Your task to perform on an android device: allow notifications from all sites in the chrome app Image 0: 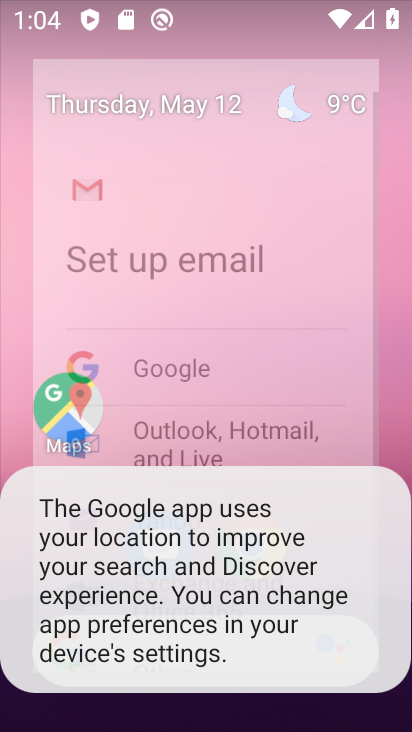
Step 0: drag from (289, 536) to (236, 40)
Your task to perform on an android device: allow notifications from all sites in the chrome app Image 1: 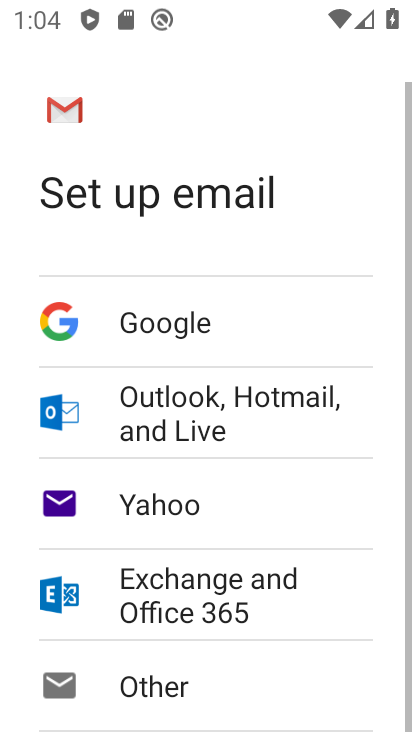
Step 1: press back button
Your task to perform on an android device: allow notifications from all sites in the chrome app Image 2: 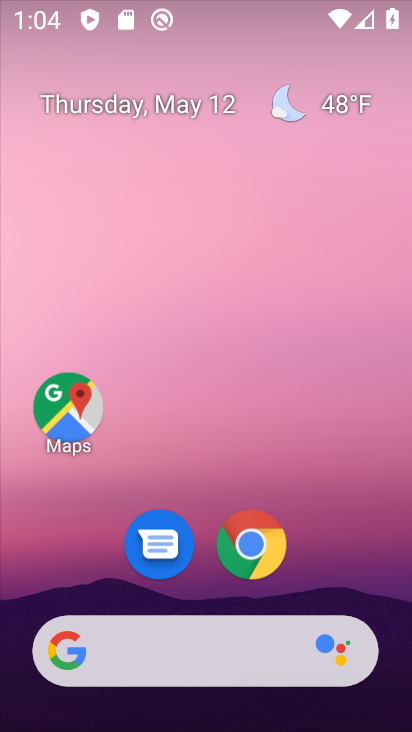
Step 2: drag from (305, 218) to (268, 50)
Your task to perform on an android device: allow notifications from all sites in the chrome app Image 3: 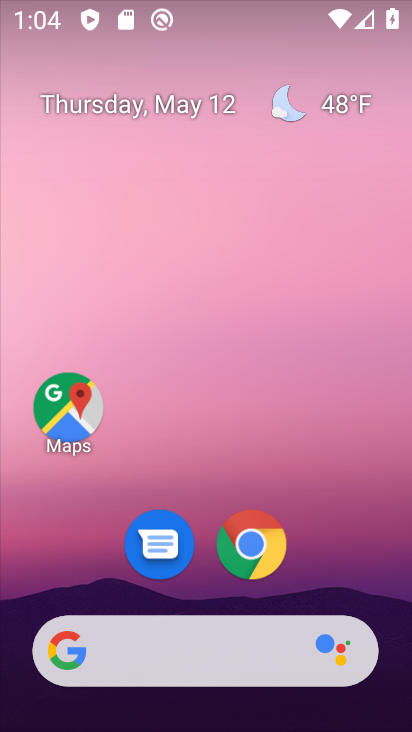
Step 3: drag from (16, 656) to (34, 77)
Your task to perform on an android device: allow notifications from all sites in the chrome app Image 4: 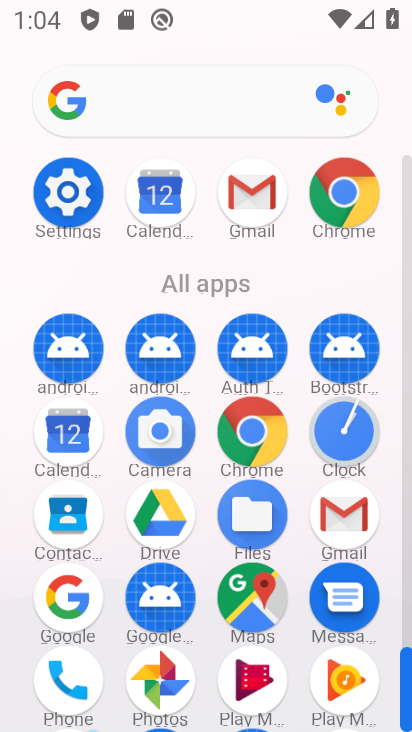
Step 4: click (345, 188)
Your task to perform on an android device: allow notifications from all sites in the chrome app Image 5: 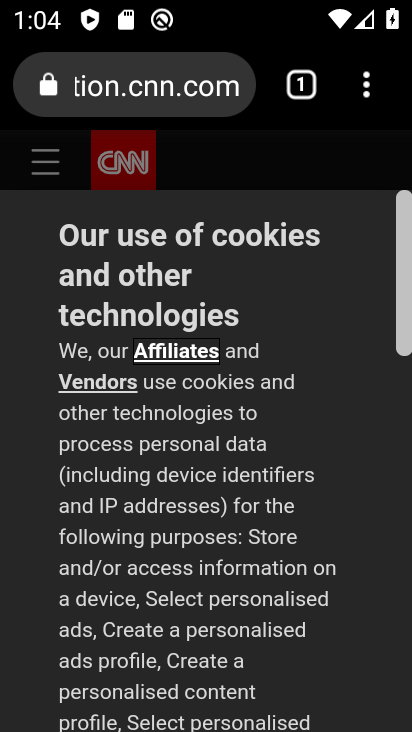
Step 5: drag from (364, 81) to (158, 618)
Your task to perform on an android device: allow notifications from all sites in the chrome app Image 6: 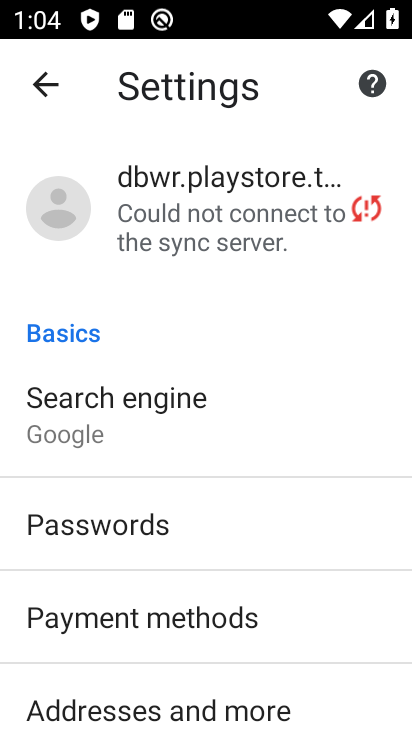
Step 6: drag from (226, 599) to (227, 198)
Your task to perform on an android device: allow notifications from all sites in the chrome app Image 7: 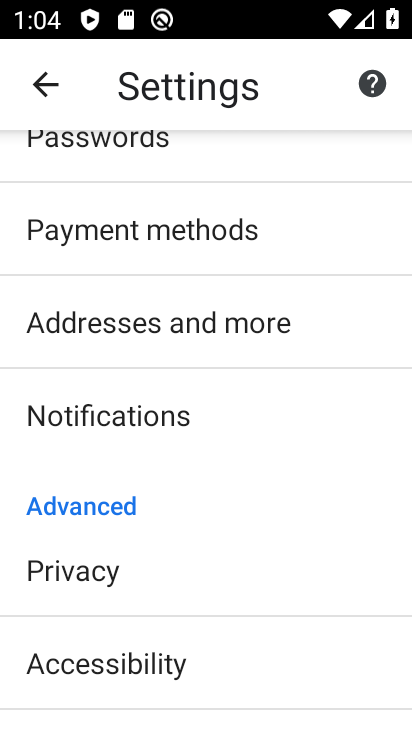
Step 7: drag from (220, 558) to (250, 244)
Your task to perform on an android device: allow notifications from all sites in the chrome app Image 8: 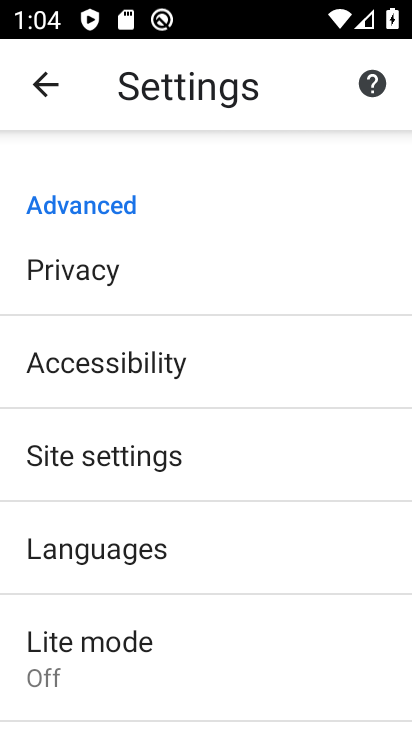
Step 8: click (179, 455)
Your task to perform on an android device: allow notifications from all sites in the chrome app Image 9: 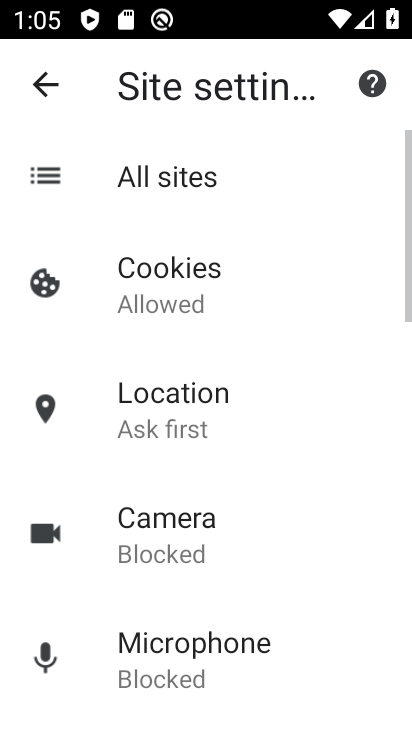
Step 9: drag from (240, 606) to (212, 186)
Your task to perform on an android device: allow notifications from all sites in the chrome app Image 10: 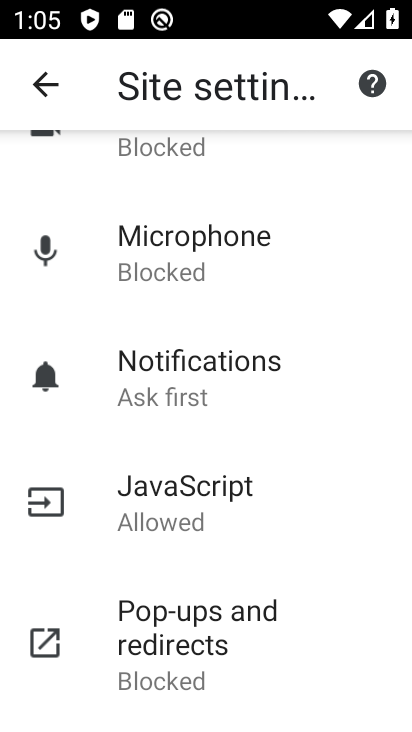
Step 10: click (214, 494)
Your task to perform on an android device: allow notifications from all sites in the chrome app Image 11: 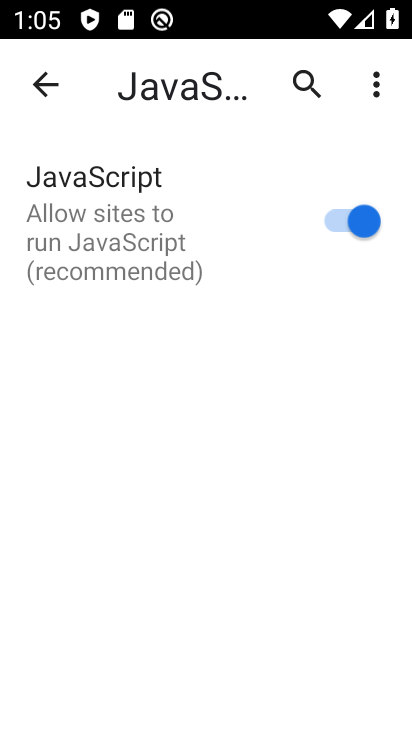
Step 11: click (47, 81)
Your task to perform on an android device: allow notifications from all sites in the chrome app Image 12: 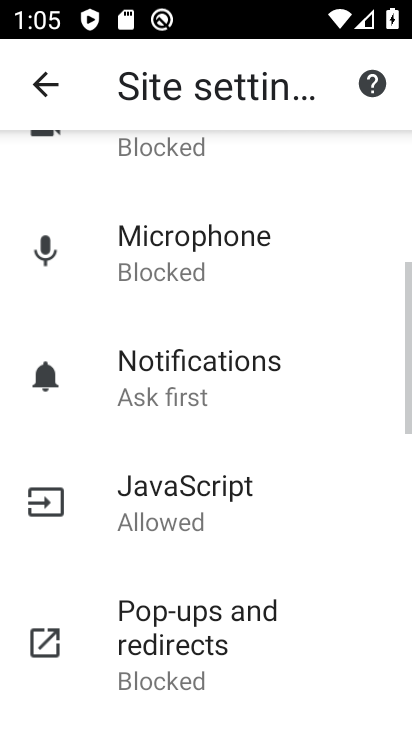
Step 12: click (248, 342)
Your task to perform on an android device: allow notifications from all sites in the chrome app Image 13: 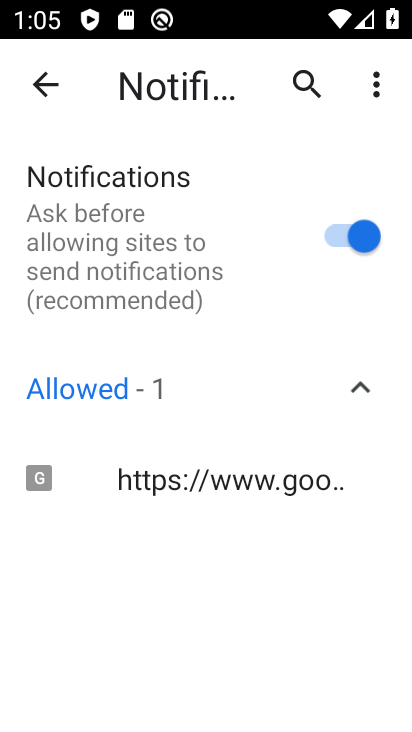
Step 13: task complete